Your task to perform on an android device: turn vacation reply on in the gmail app Image 0: 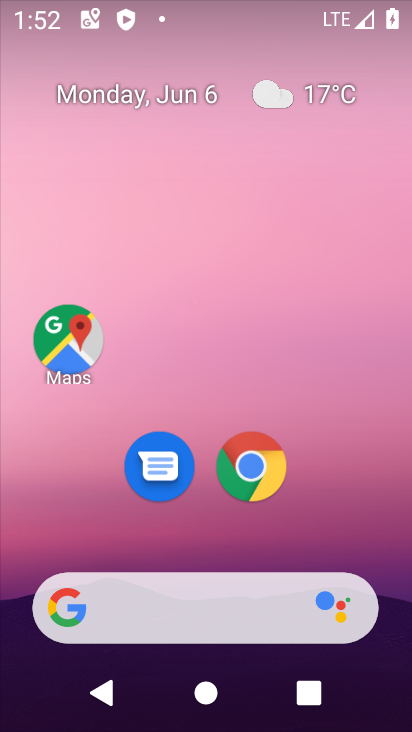
Step 0: press home button
Your task to perform on an android device: turn vacation reply on in the gmail app Image 1: 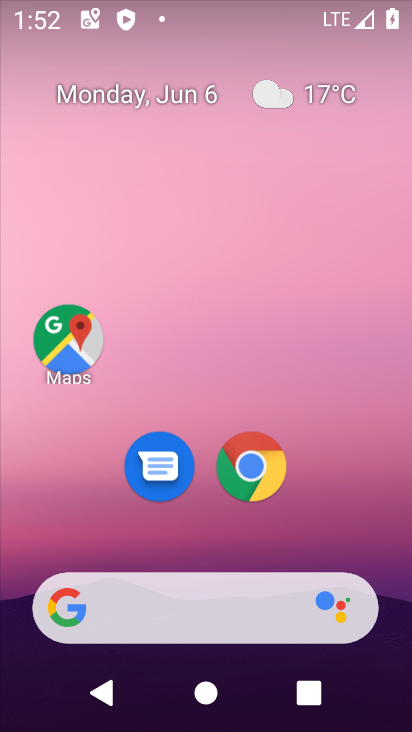
Step 1: drag from (206, 550) to (194, 96)
Your task to perform on an android device: turn vacation reply on in the gmail app Image 2: 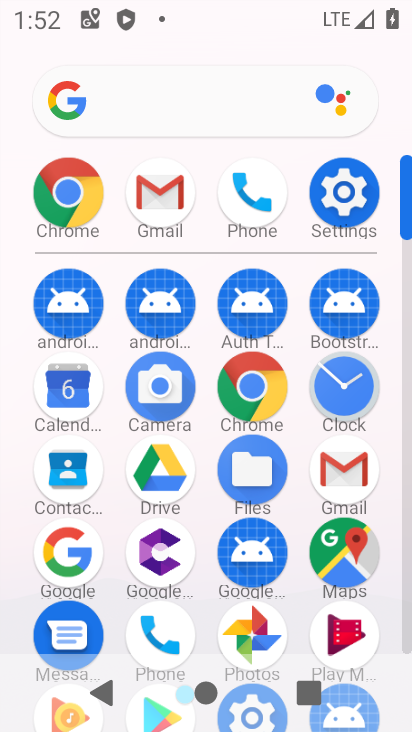
Step 2: click (159, 186)
Your task to perform on an android device: turn vacation reply on in the gmail app Image 3: 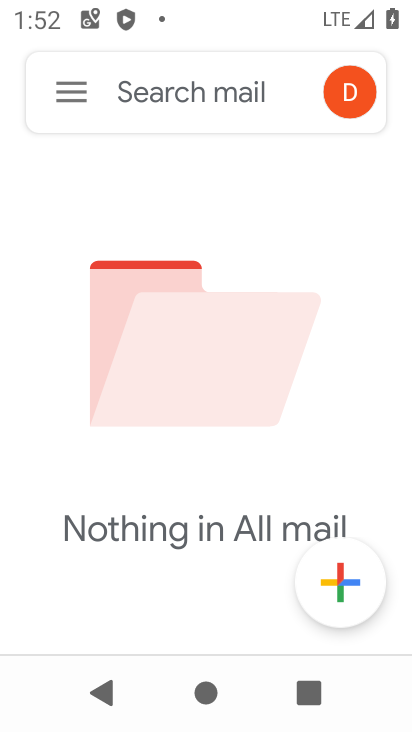
Step 3: click (61, 84)
Your task to perform on an android device: turn vacation reply on in the gmail app Image 4: 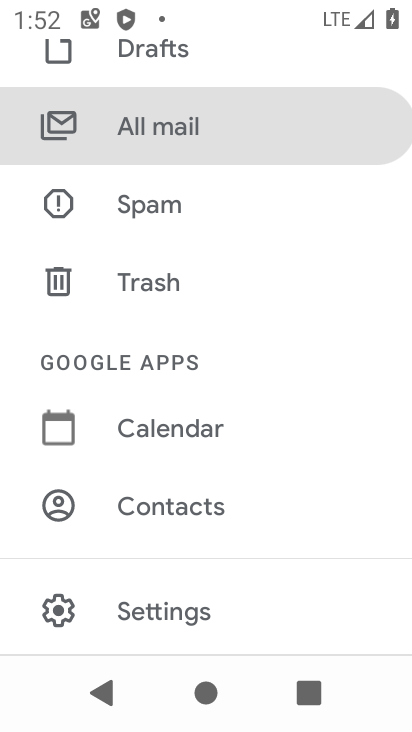
Step 4: click (180, 617)
Your task to perform on an android device: turn vacation reply on in the gmail app Image 5: 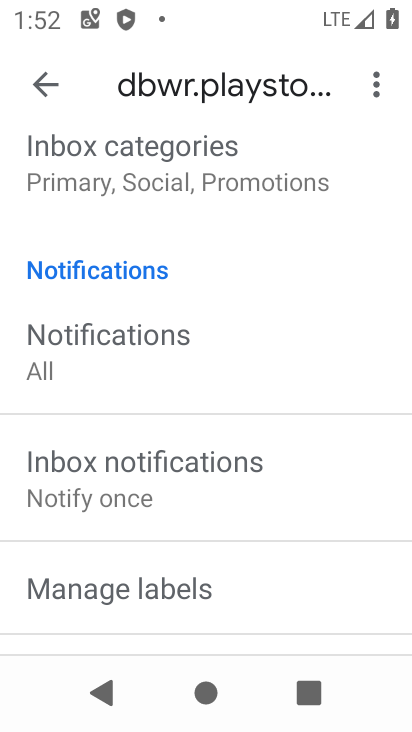
Step 5: drag from (327, 577) to (314, 34)
Your task to perform on an android device: turn vacation reply on in the gmail app Image 6: 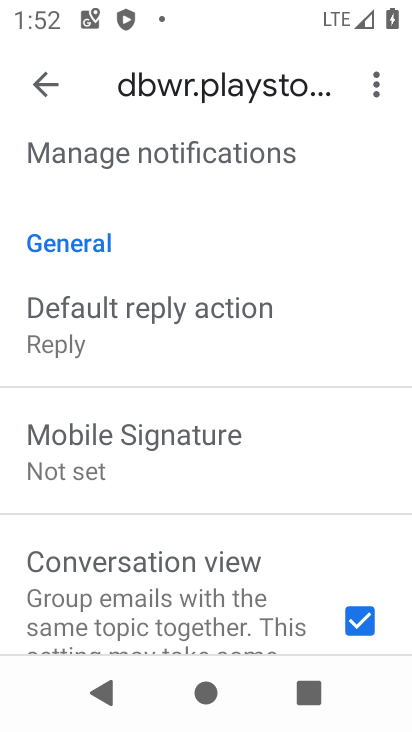
Step 6: drag from (305, 519) to (317, 119)
Your task to perform on an android device: turn vacation reply on in the gmail app Image 7: 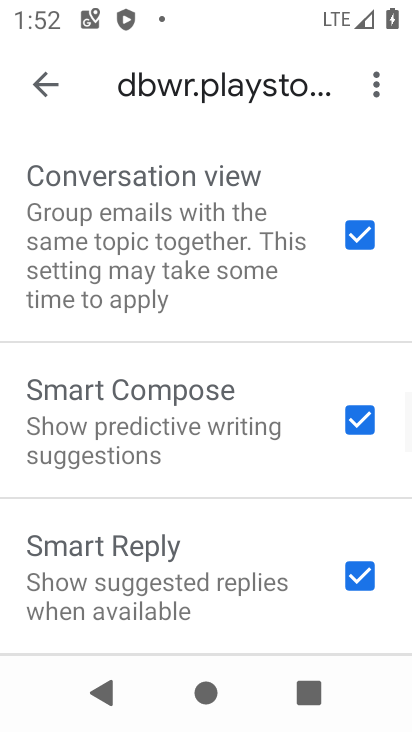
Step 7: drag from (257, 538) to (251, 126)
Your task to perform on an android device: turn vacation reply on in the gmail app Image 8: 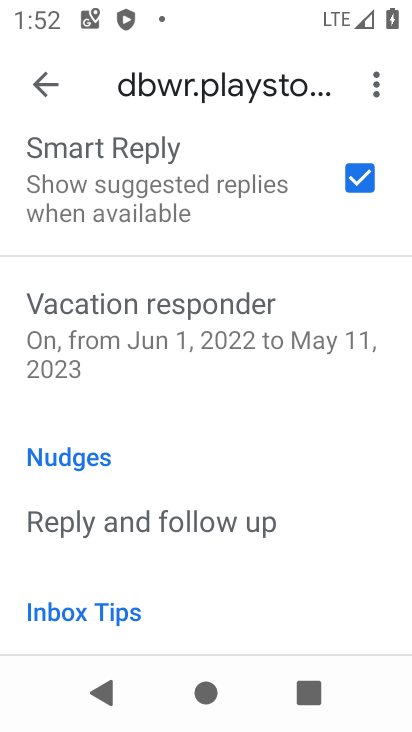
Step 8: click (162, 295)
Your task to perform on an android device: turn vacation reply on in the gmail app Image 9: 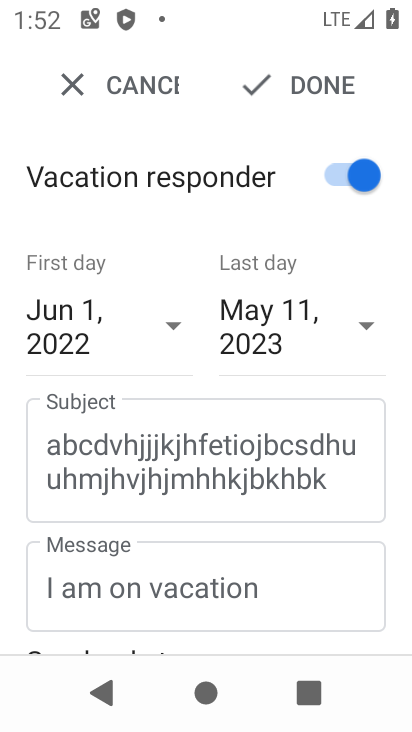
Step 9: task complete